Your task to perform on an android device: change timer sound Image 0: 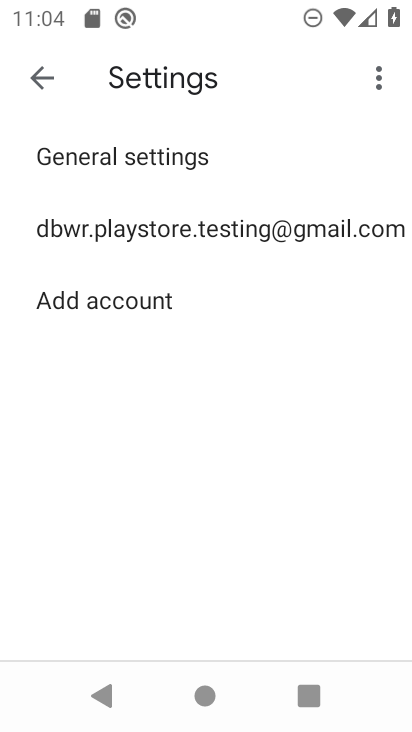
Step 0: press home button
Your task to perform on an android device: change timer sound Image 1: 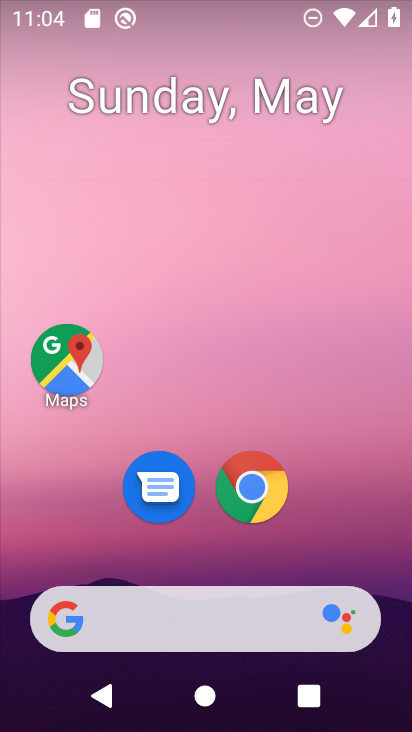
Step 1: drag from (341, 544) to (289, 207)
Your task to perform on an android device: change timer sound Image 2: 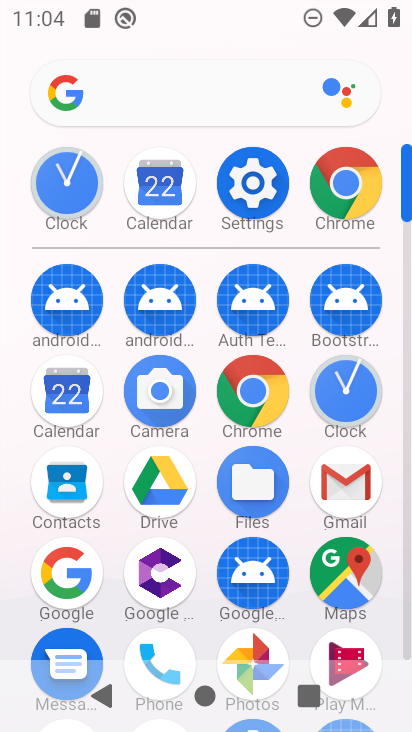
Step 2: click (360, 399)
Your task to perform on an android device: change timer sound Image 3: 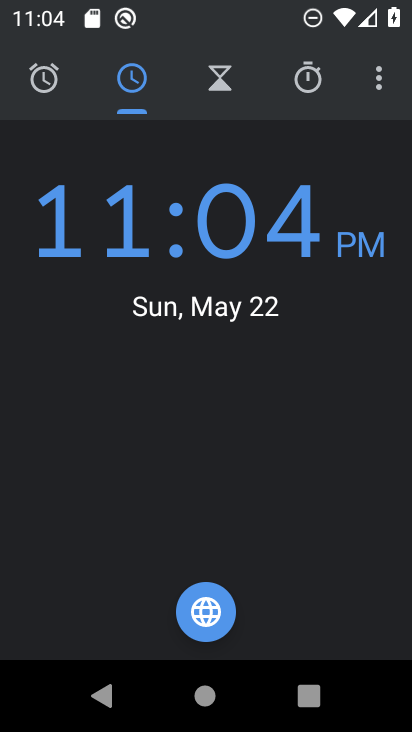
Step 3: click (376, 66)
Your task to perform on an android device: change timer sound Image 4: 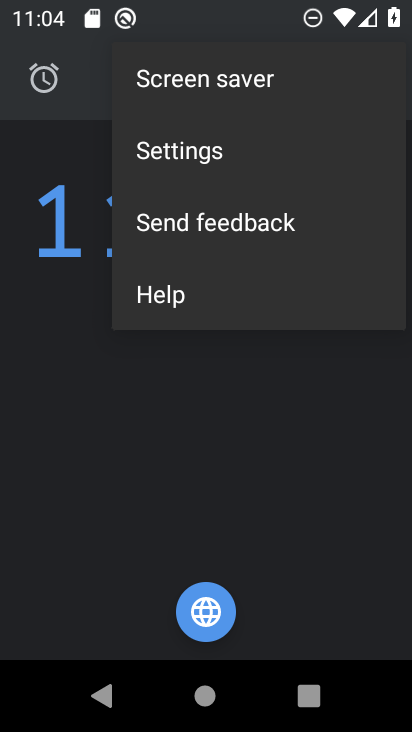
Step 4: click (322, 146)
Your task to perform on an android device: change timer sound Image 5: 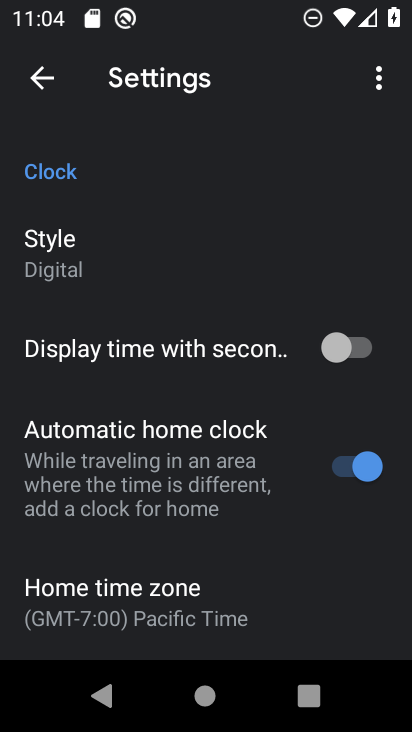
Step 5: drag from (247, 579) to (213, 154)
Your task to perform on an android device: change timer sound Image 6: 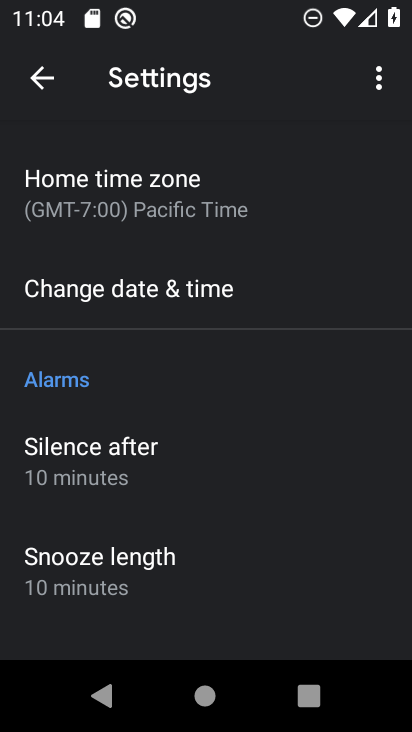
Step 6: drag from (229, 534) to (215, 222)
Your task to perform on an android device: change timer sound Image 7: 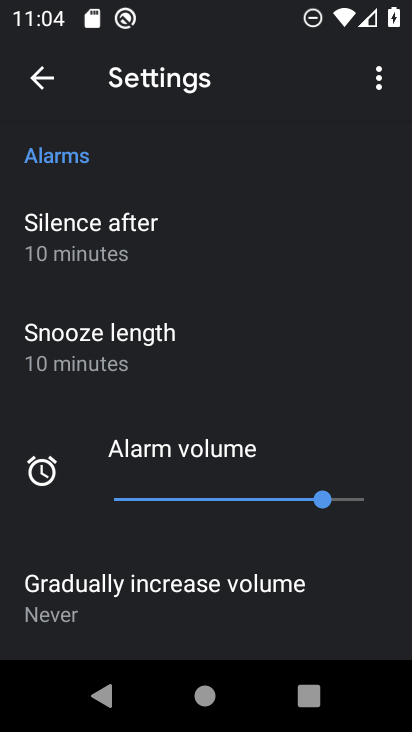
Step 7: drag from (247, 564) to (217, 269)
Your task to perform on an android device: change timer sound Image 8: 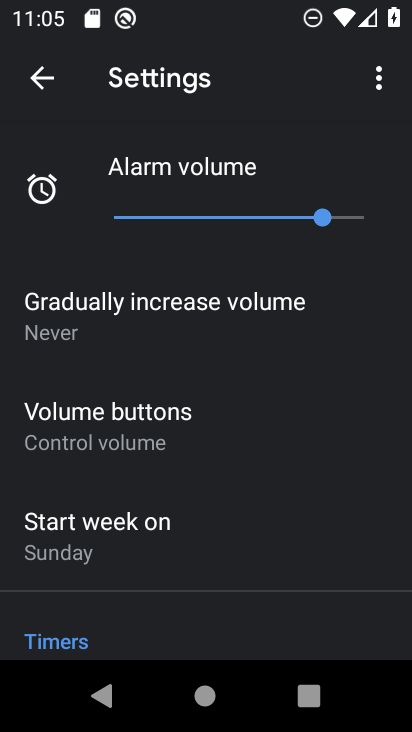
Step 8: drag from (250, 538) to (205, 160)
Your task to perform on an android device: change timer sound Image 9: 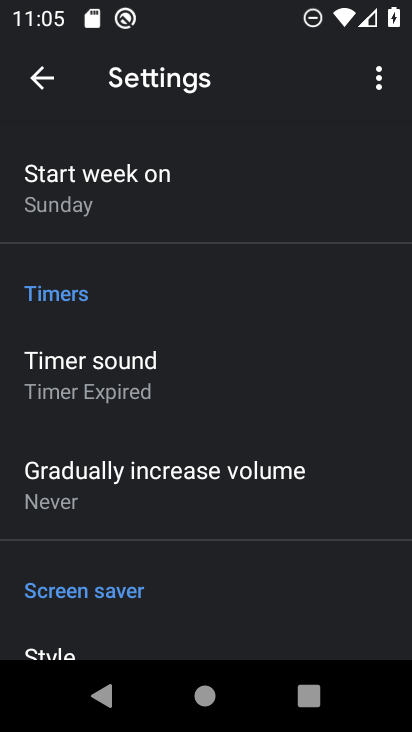
Step 9: click (216, 393)
Your task to perform on an android device: change timer sound Image 10: 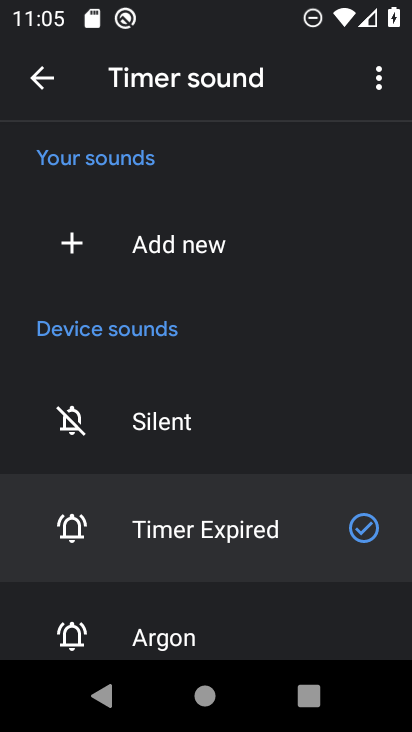
Step 10: click (197, 616)
Your task to perform on an android device: change timer sound Image 11: 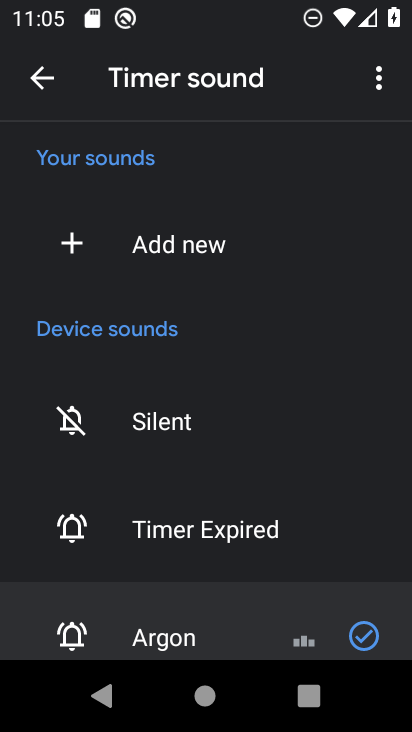
Step 11: task complete